Your task to perform on an android device: turn pop-ups on in chrome Image 0: 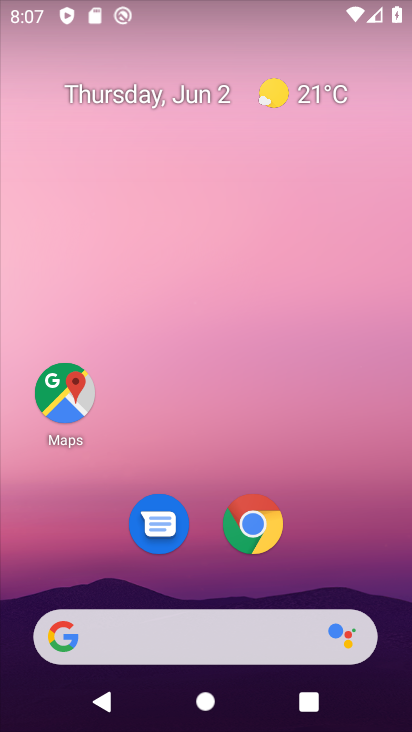
Step 0: click (258, 512)
Your task to perform on an android device: turn pop-ups on in chrome Image 1: 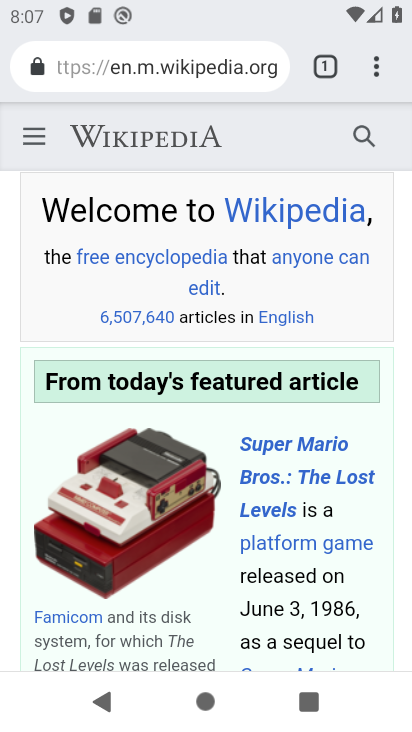
Step 1: click (373, 58)
Your task to perform on an android device: turn pop-ups on in chrome Image 2: 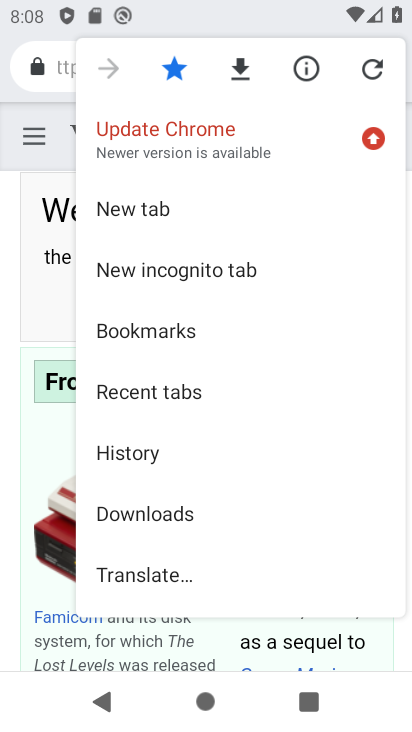
Step 2: drag from (290, 460) to (275, 172)
Your task to perform on an android device: turn pop-ups on in chrome Image 3: 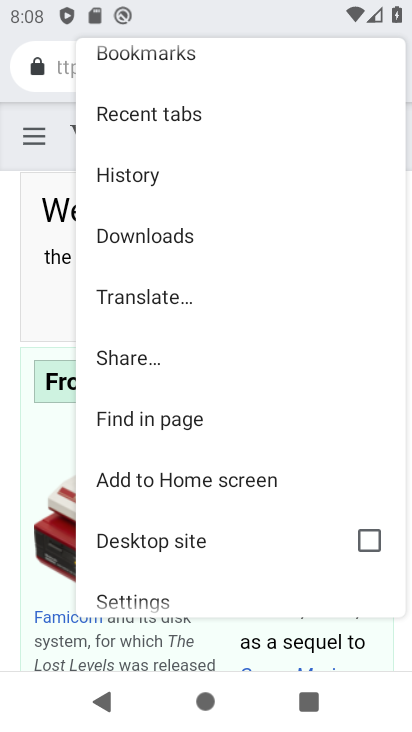
Step 3: drag from (250, 483) to (271, 199)
Your task to perform on an android device: turn pop-ups on in chrome Image 4: 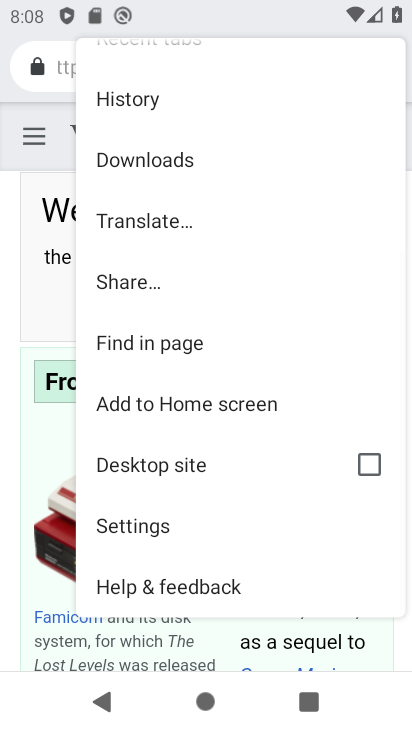
Step 4: click (160, 519)
Your task to perform on an android device: turn pop-ups on in chrome Image 5: 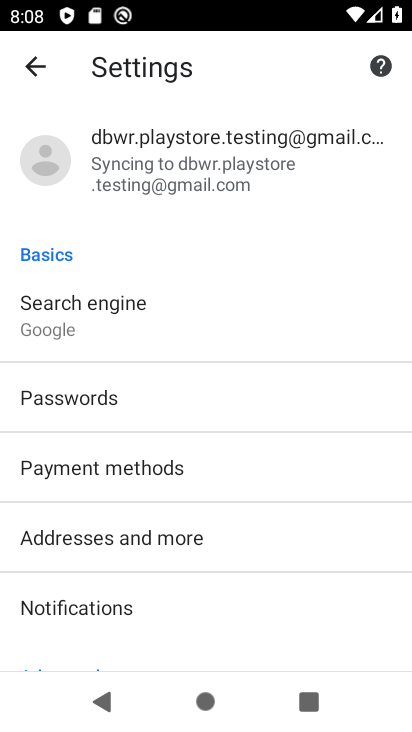
Step 5: drag from (270, 472) to (228, 48)
Your task to perform on an android device: turn pop-ups on in chrome Image 6: 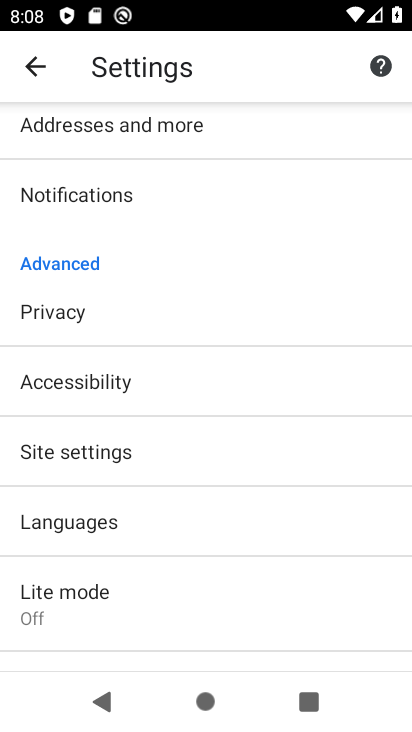
Step 6: click (209, 434)
Your task to perform on an android device: turn pop-ups on in chrome Image 7: 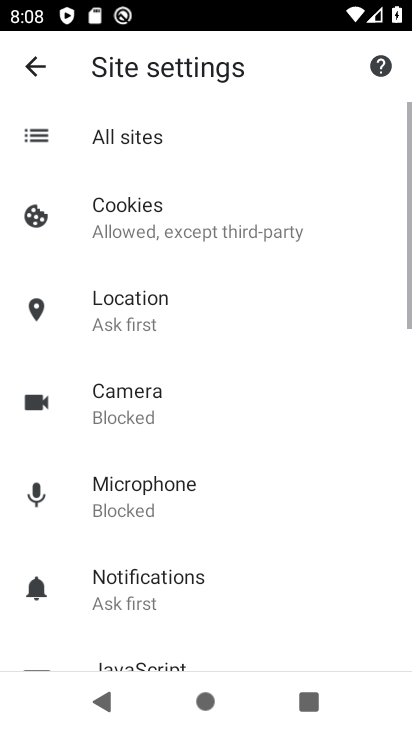
Step 7: drag from (242, 531) to (242, 156)
Your task to perform on an android device: turn pop-ups on in chrome Image 8: 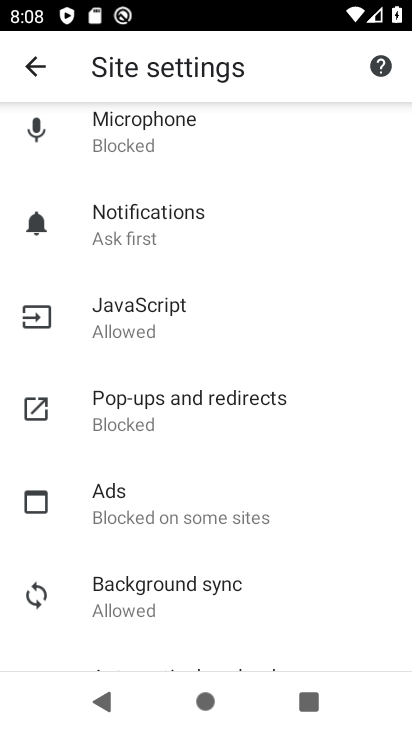
Step 8: click (239, 412)
Your task to perform on an android device: turn pop-ups on in chrome Image 9: 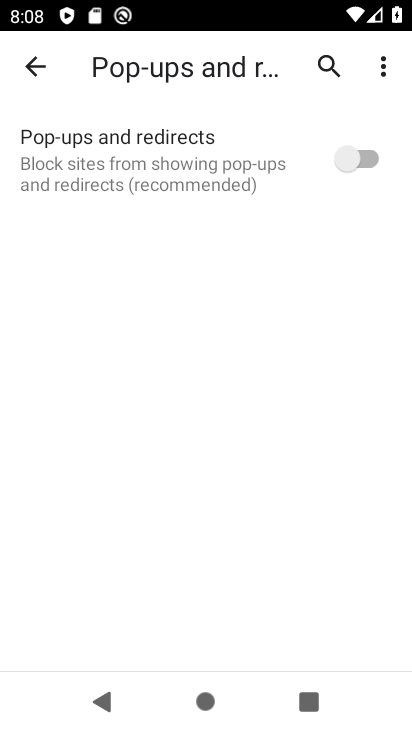
Step 9: click (346, 150)
Your task to perform on an android device: turn pop-ups on in chrome Image 10: 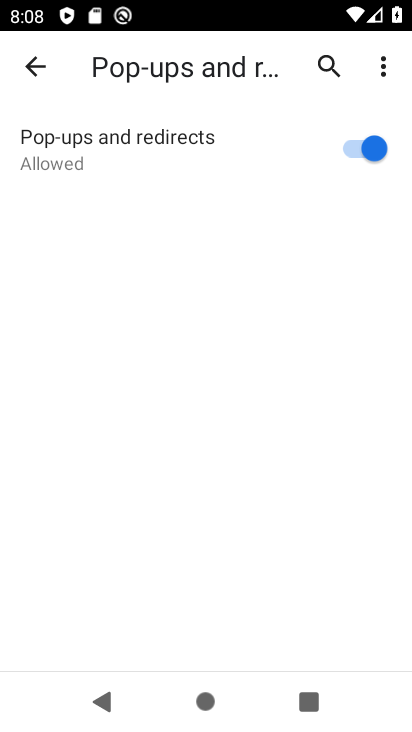
Step 10: task complete